Your task to perform on an android device: check data usage Image 0: 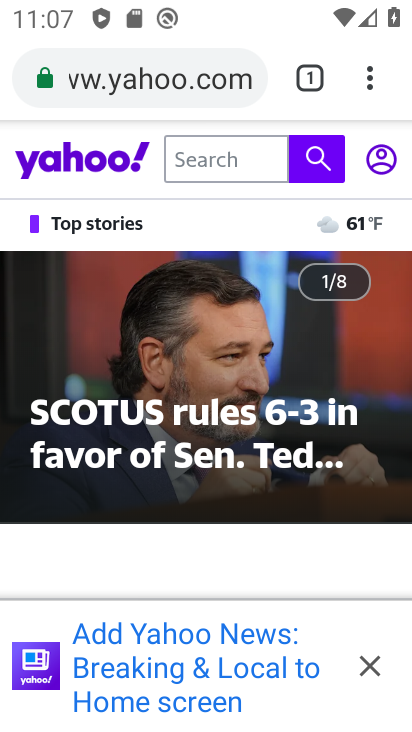
Step 0: press home button
Your task to perform on an android device: check data usage Image 1: 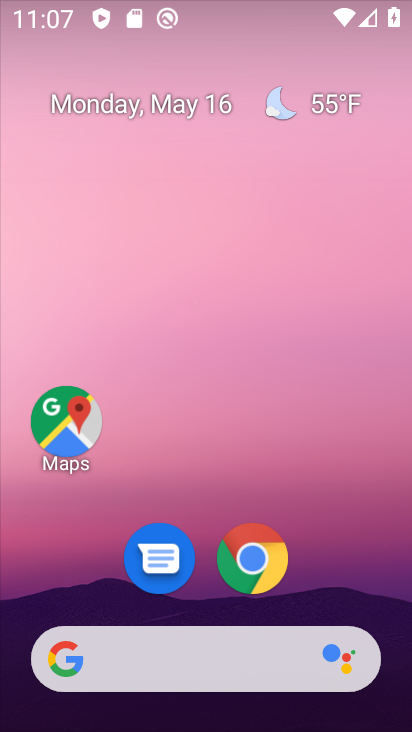
Step 1: drag from (301, 499) to (347, 103)
Your task to perform on an android device: check data usage Image 2: 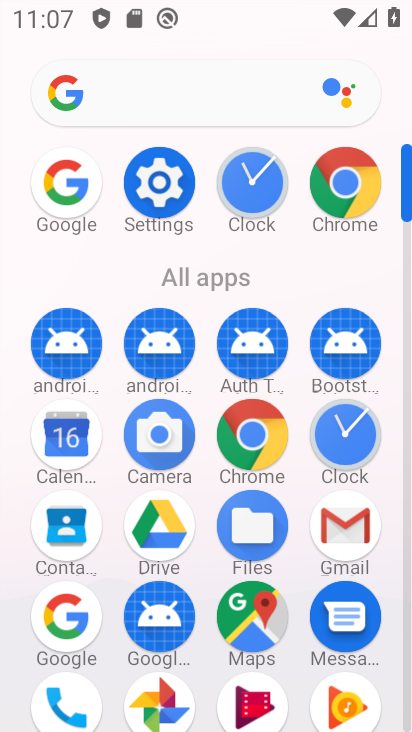
Step 2: click (160, 185)
Your task to perform on an android device: check data usage Image 3: 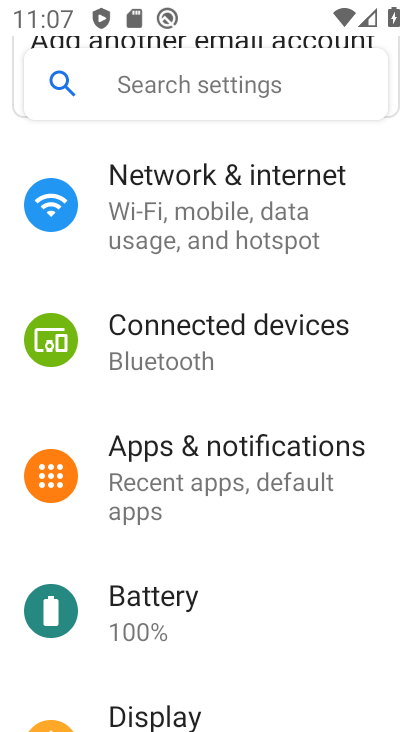
Step 3: drag from (229, 642) to (244, 321)
Your task to perform on an android device: check data usage Image 4: 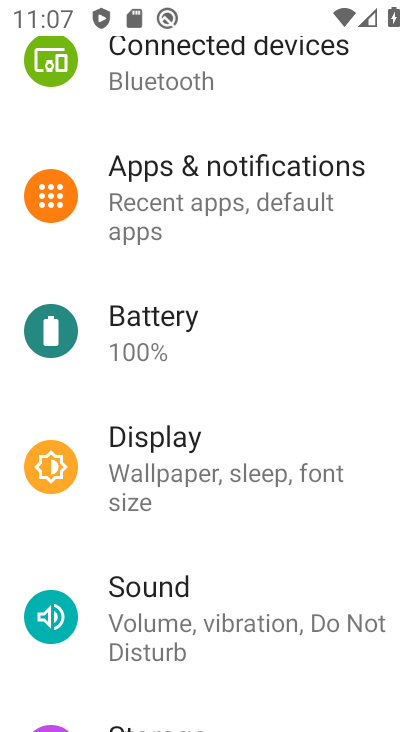
Step 4: drag from (274, 641) to (283, 385)
Your task to perform on an android device: check data usage Image 5: 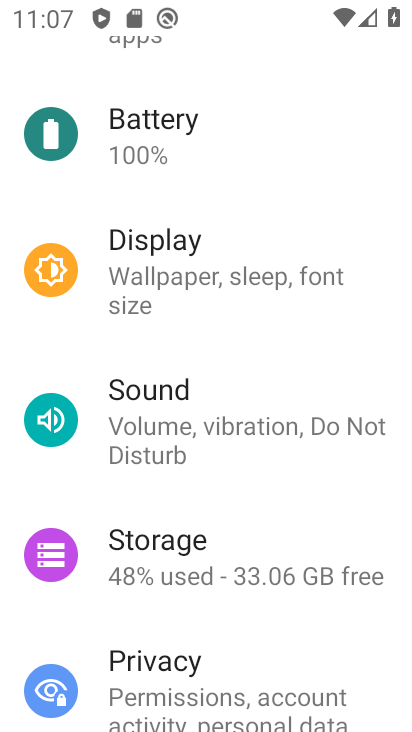
Step 5: click (198, 565)
Your task to perform on an android device: check data usage Image 6: 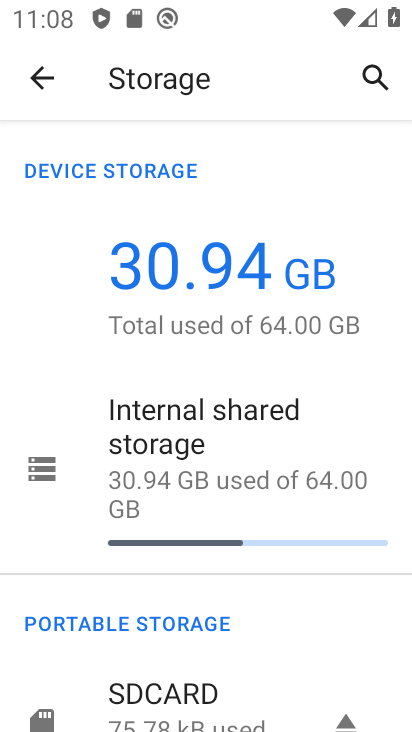
Step 6: task complete